Your task to perform on an android device: Open Chrome and go to settings Image 0: 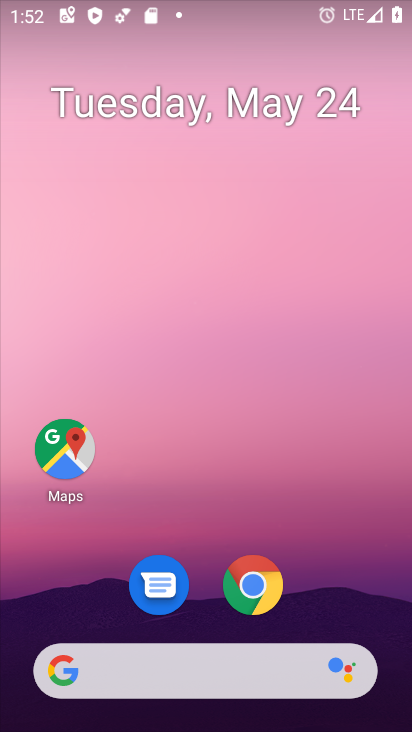
Step 0: click (251, 582)
Your task to perform on an android device: Open Chrome and go to settings Image 1: 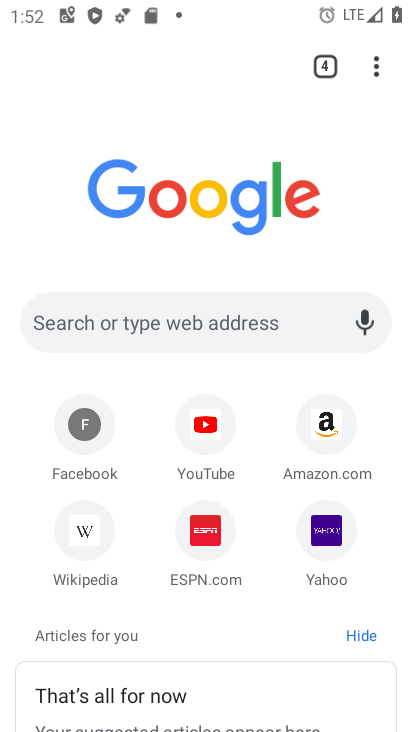
Step 1: click (375, 68)
Your task to perform on an android device: Open Chrome and go to settings Image 2: 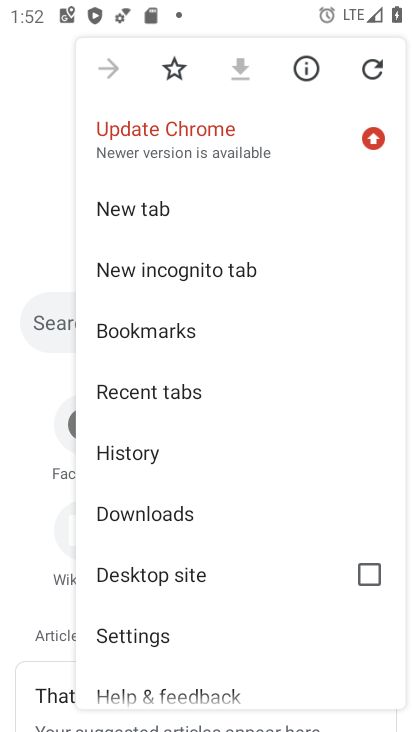
Step 2: click (186, 636)
Your task to perform on an android device: Open Chrome and go to settings Image 3: 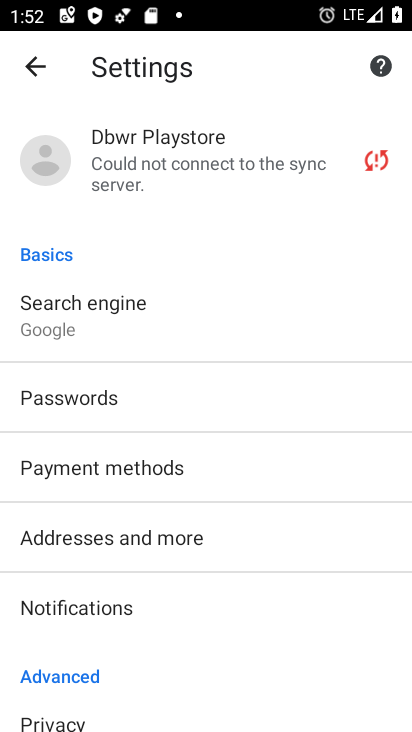
Step 3: task complete